Your task to perform on an android device: Open Chrome and go to settings Image 0: 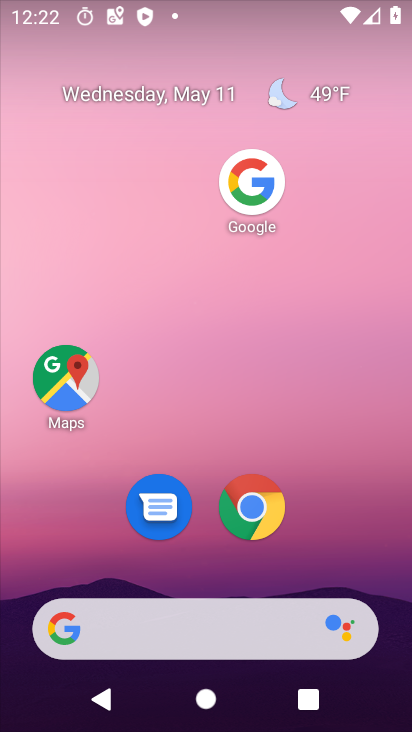
Step 0: click (252, 504)
Your task to perform on an android device: Open Chrome and go to settings Image 1: 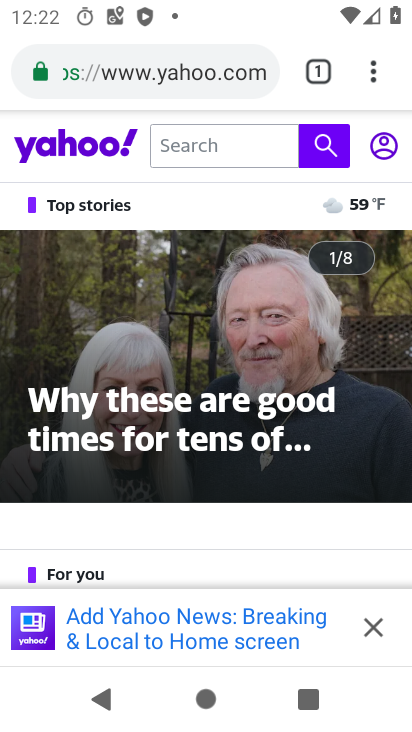
Step 1: click (361, 75)
Your task to perform on an android device: Open Chrome and go to settings Image 2: 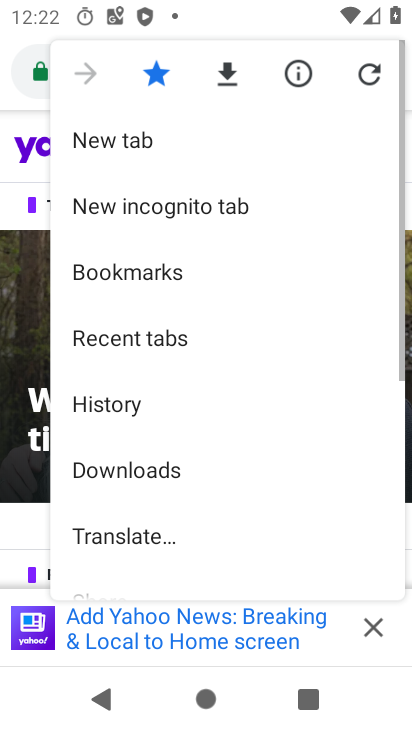
Step 2: drag from (228, 499) to (243, 78)
Your task to perform on an android device: Open Chrome and go to settings Image 3: 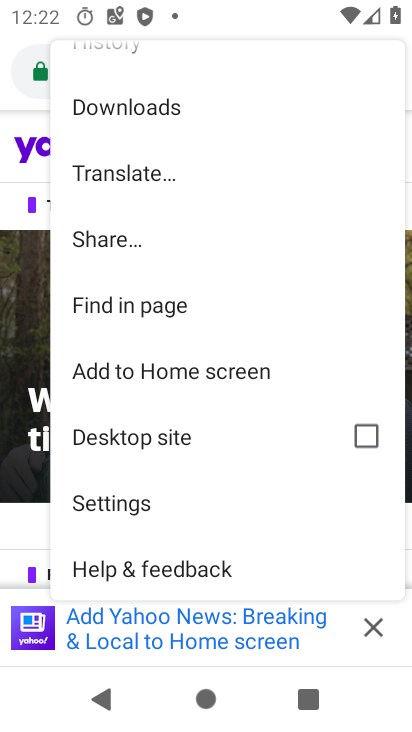
Step 3: click (118, 500)
Your task to perform on an android device: Open Chrome and go to settings Image 4: 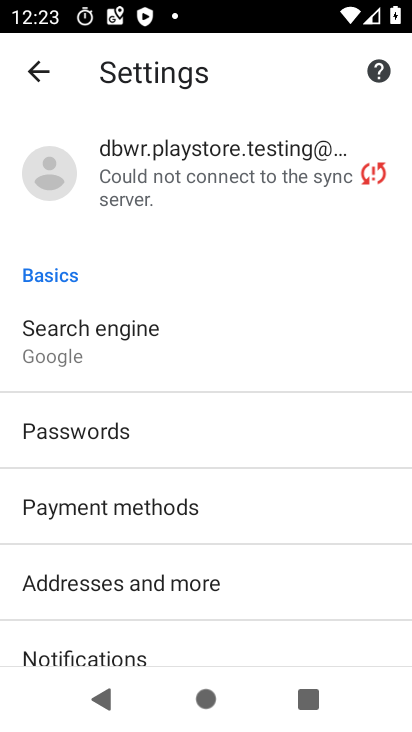
Step 4: task complete